Your task to perform on an android device: Go to accessibility settings Image 0: 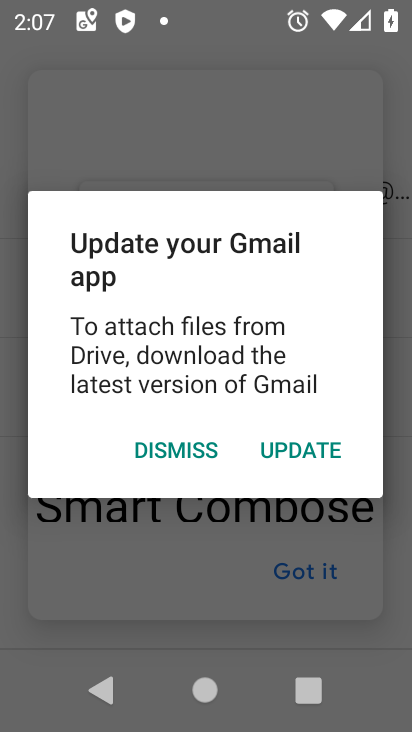
Step 0: press home button
Your task to perform on an android device: Go to accessibility settings Image 1: 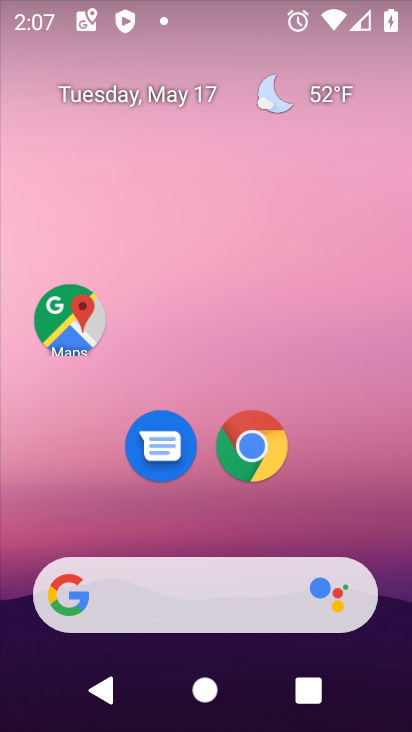
Step 1: drag from (143, 498) to (171, 204)
Your task to perform on an android device: Go to accessibility settings Image 2: 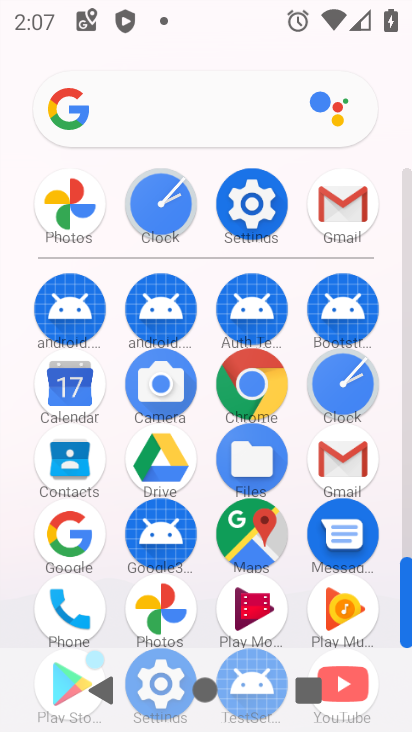
Step 2: click (251, 201)
Your task to perform on an android device: Go to accessibility settings Image 3: 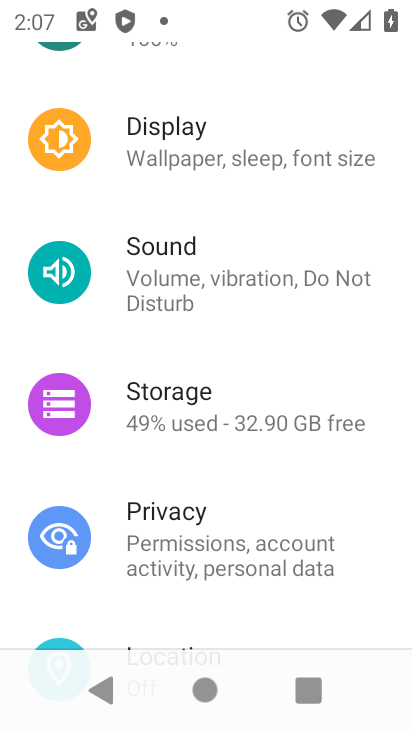
Step 3: drag from (240, 507) to (264, 152)
Your task to perform on an android device: Go to accessibility settings Image 4: 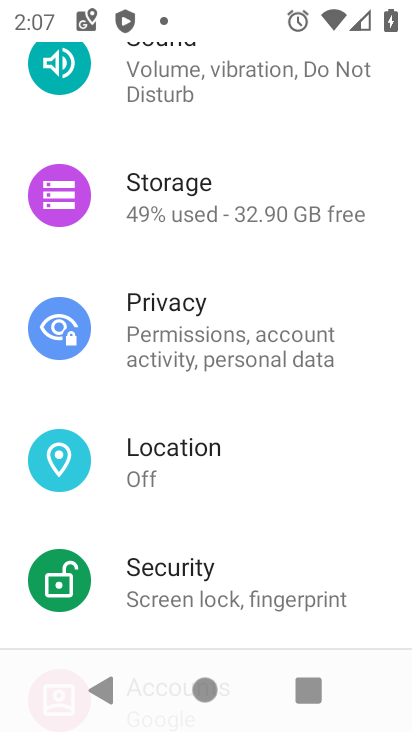
Step 4: drag from (181, 524) to (211, 143)
Your task to perform on an android device: Go to accessibility settings Image 5: 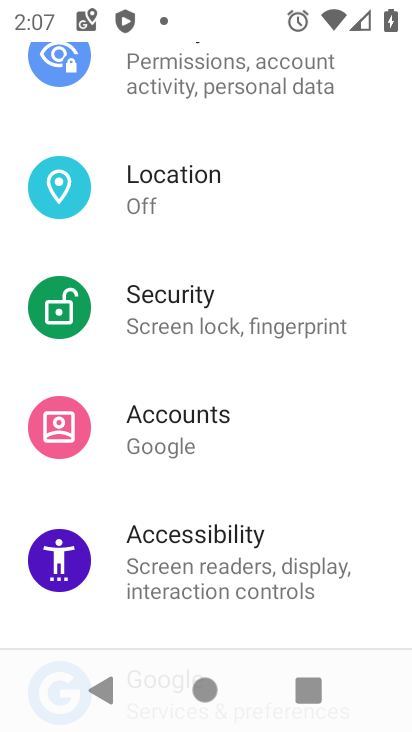
Step 5: click (222, 536)
Your task to perform on an android device: Go to accessibility settings Image 6: 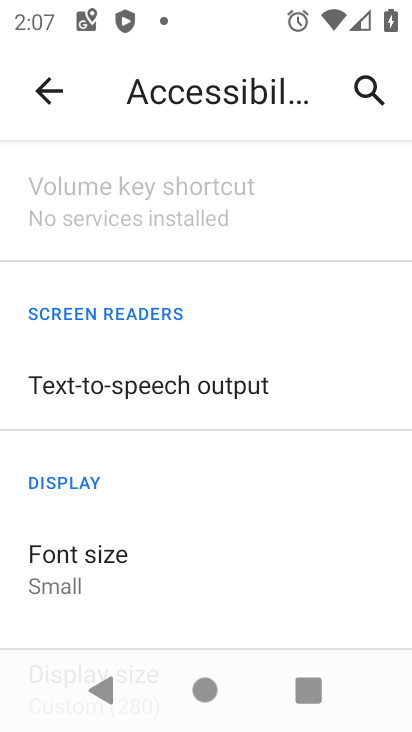
Step 6: task complete